Your task to perform on an android device: delete the emails in spam in the gmail app Image 0: 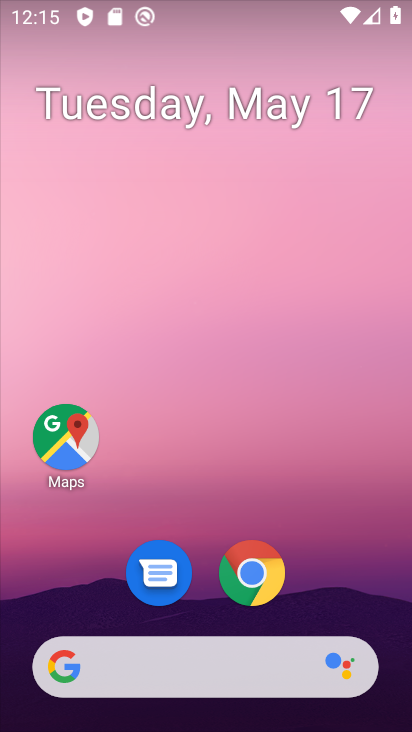
Step 0: drag from (207, 602) to (248, 38)
Your task to perform on an android device: delete the emails in spam in the gmail app Image 1: 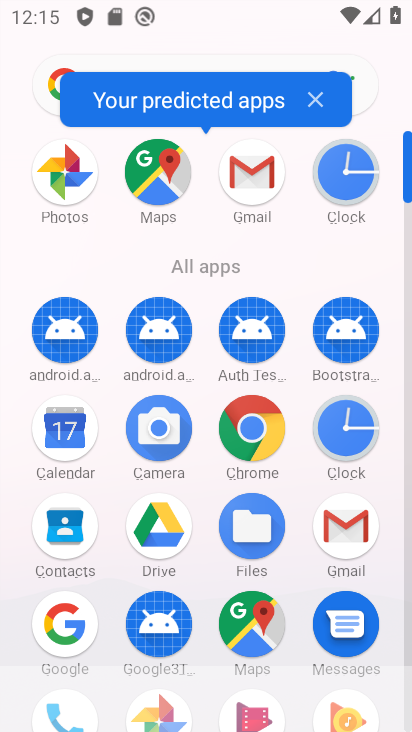
Step 1: click (250, 170)
Your task to perform on an android device: delete the emails in spam in the gmail app Image 2: 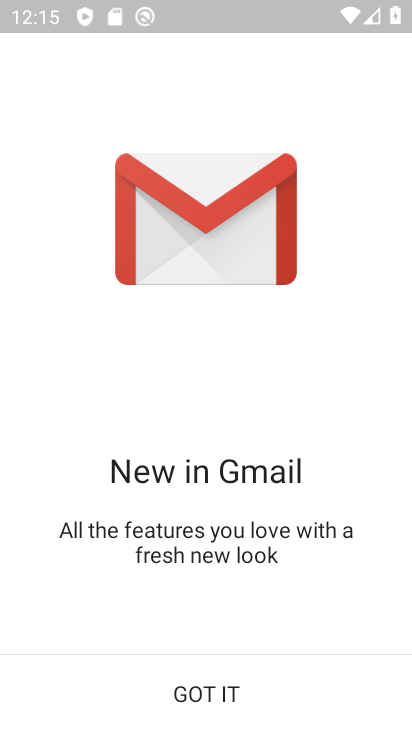
Step 2: click (219, 697)
Your task to perform on an android device: delete the emails in spam in the gmail app Image 3: 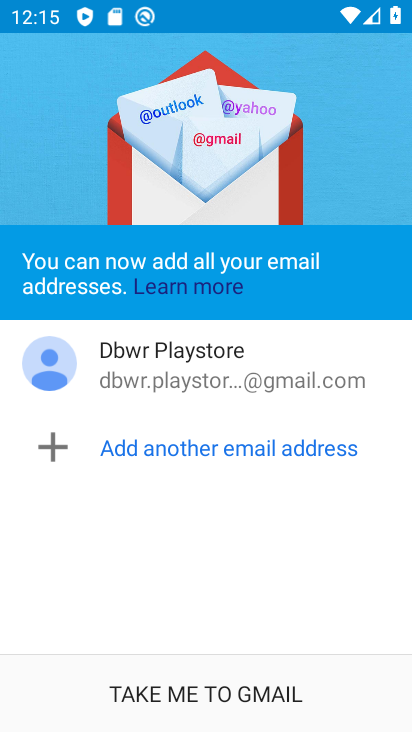
Step 3: click (202, 691)
Your task to perform on an android device: delete the emails in spam in the gmail app Image 4: 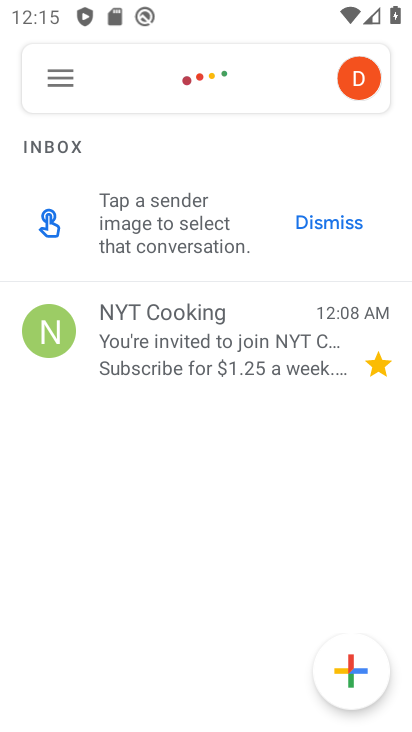
Step 4: click (59, 66)
Your task to perform on an android device: delete the emails in spam in the gmail app Image 5: 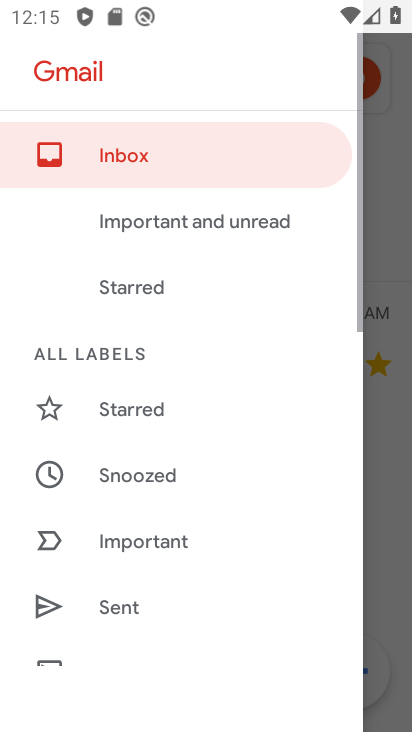
Step 5: drag from (143, 615) to (143, 83)
Your task to perform on an android device: delete the emails in spam in the gmail app Image 6: 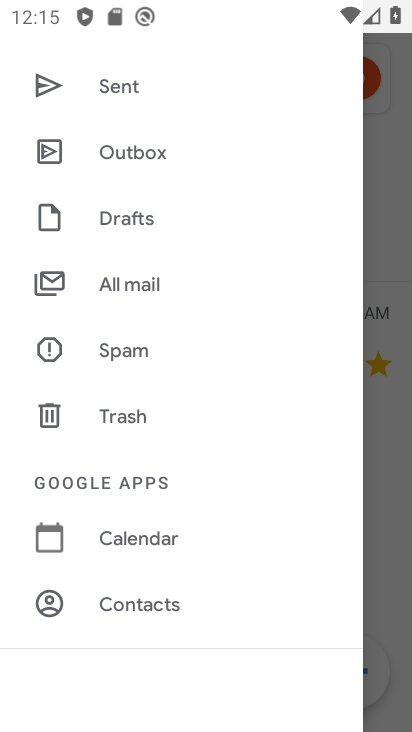
Step 6: click (101, 342)
Your task to perform on an android device: delete the emails in spam in the gmail app Image 7: 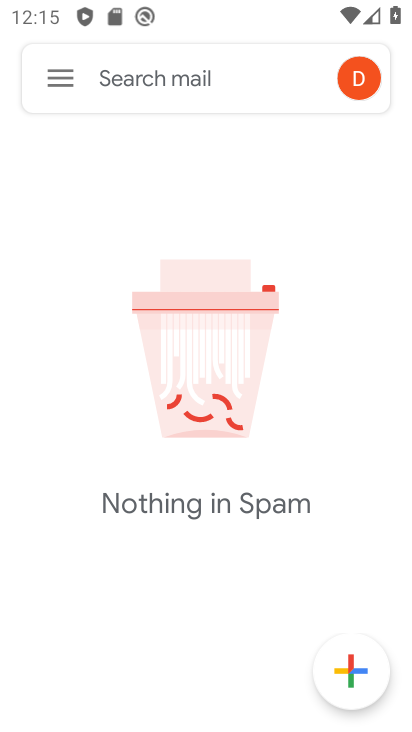
Step 7: task complete